Your task to perform on an android device: check android version Image 0: 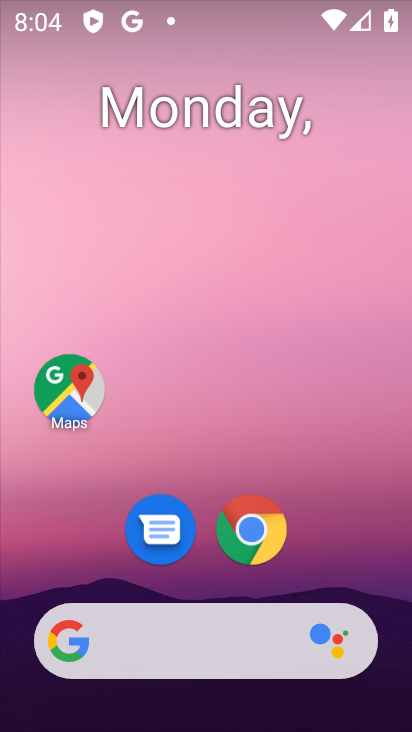
Step 0: press home button
Your task to perform on an android device: check android version Image 1: 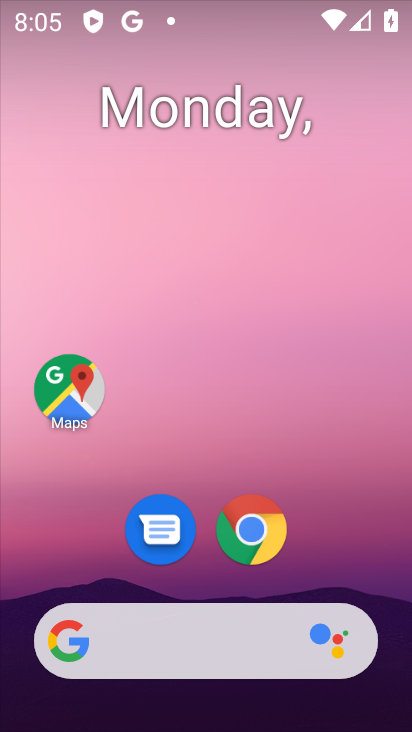
Step 1: drag from (200, 686) to (267, 139)
Your task to perform on an android device: check android version Image 2: 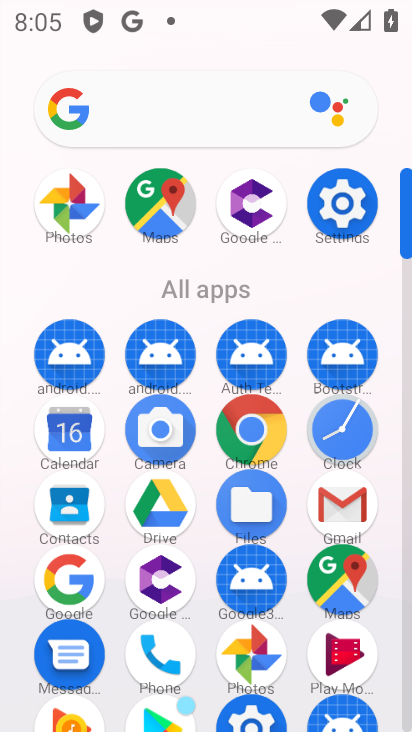
Step 2: click (350, 188)
Your task to perform on an android device: check android version Image 3: 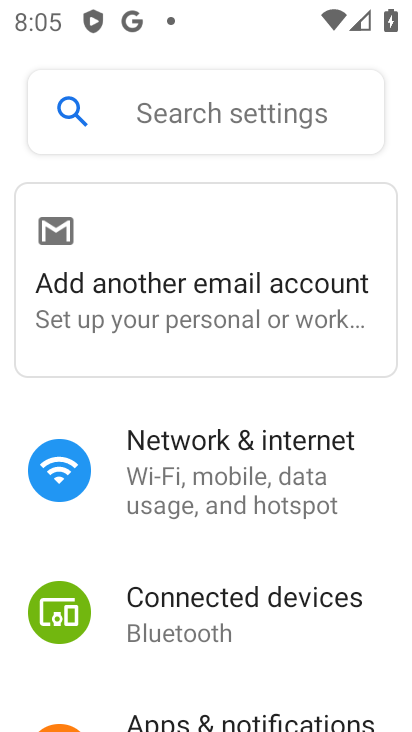
Step 3: click (212, 109)
Your task to perform on an android device: check android version Image 4: 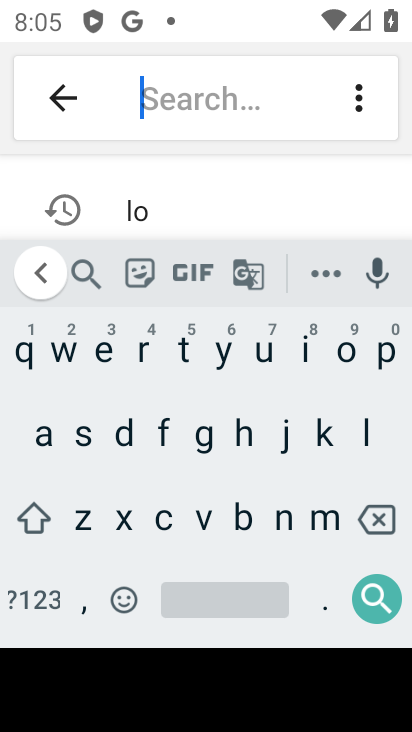
Step 4: click (27, 436)
Your task to perform on an android device: check android version Image 5: 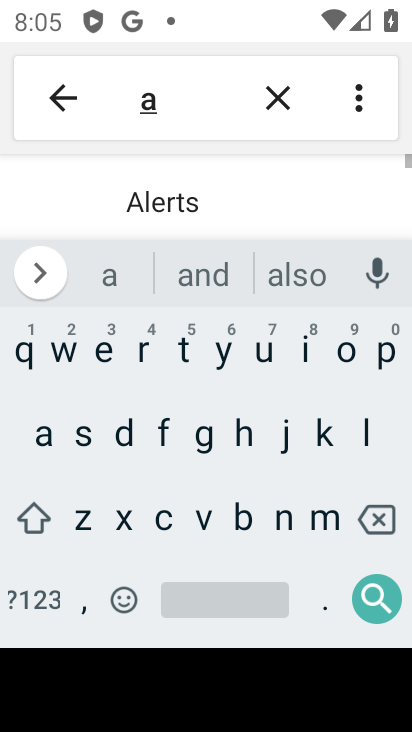
Step 5: click (281, 523)
Your task to perform on an android device: check android version Image 6: 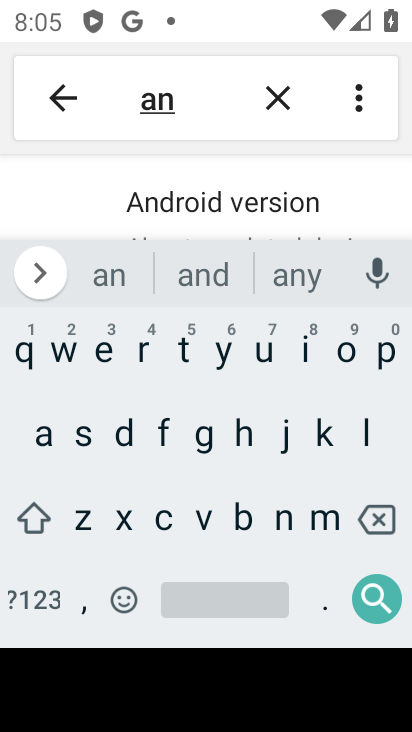
Step 6: click (235, 211)
Your task to perform on an android device: check android version Image 7: 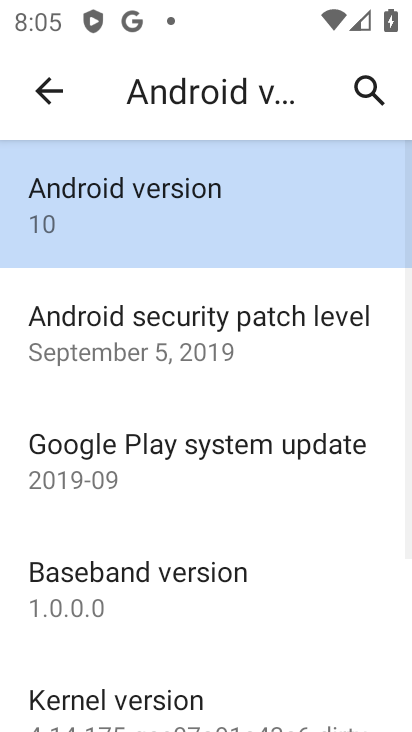
Step 7: click (194, 225)
Your task to perform on an android device: check android version Image 8: 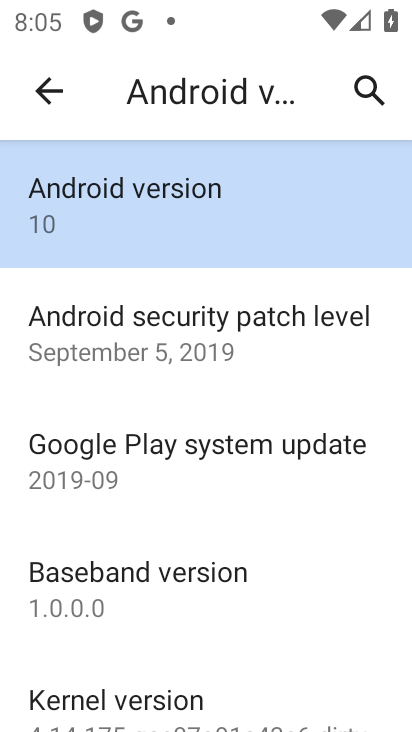
Step 8: task complete